Your task to perform on an android device: change the clock style Image 0: 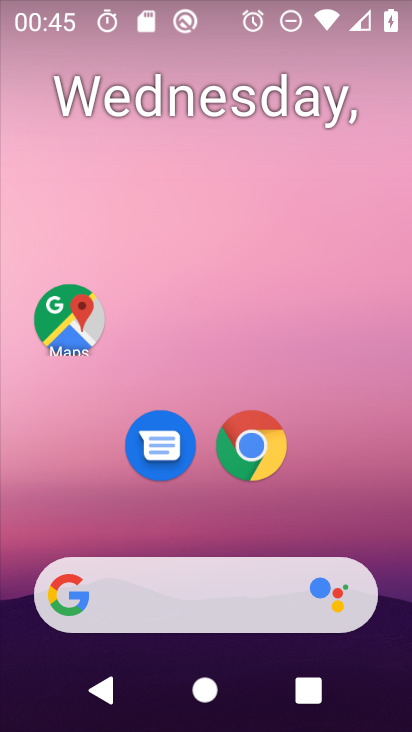
Step 0: drag from (324, 522) to (336, 0)
Your task to perform on an android device: change the clock style Image 1: 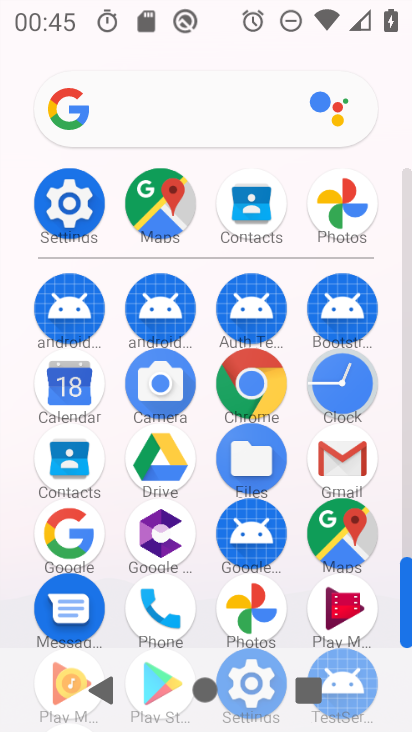
Step 1: click (336, 393)
Your task to perform on an android device: change the clock style Image 2: 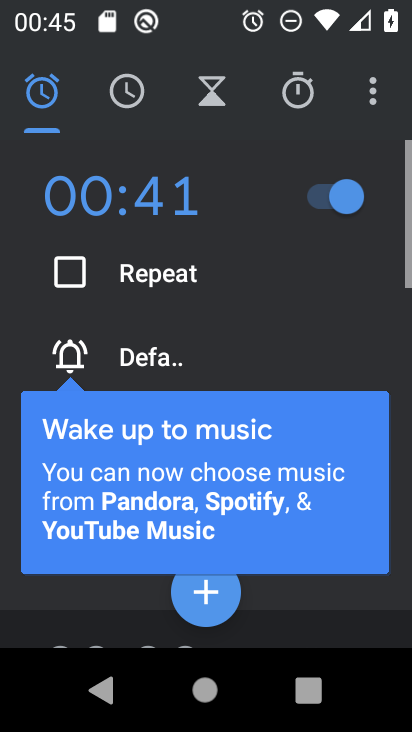
Step 2: click (373, 92)
Your task to perform on an android device: change the clock style Image 3: 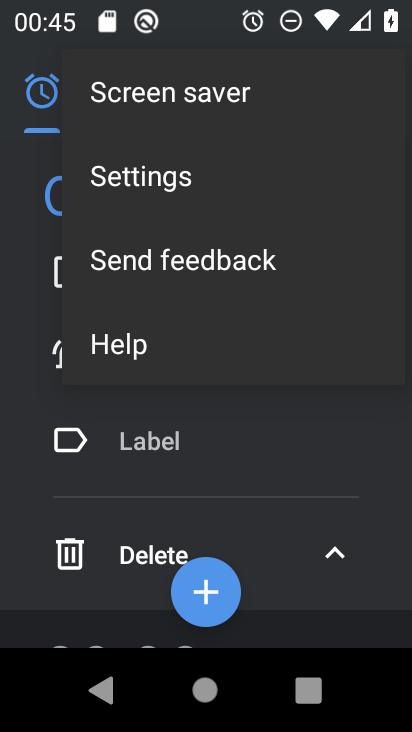
Step 3: click (200, 183)
Your task to perform on an android device: change the clock style Image 4: 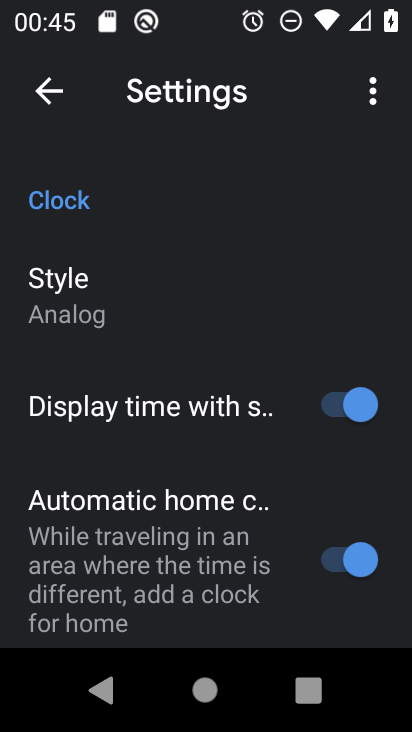
Step 4: click (51, 311)
Your task to perform on an android device: change the clock style Image 5: 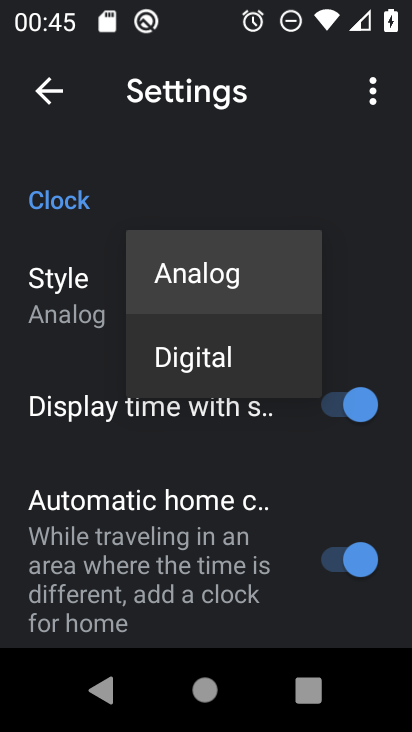
Step 5: click (204, 338)
Your task to perform on an android device: change the clock style Image 6: 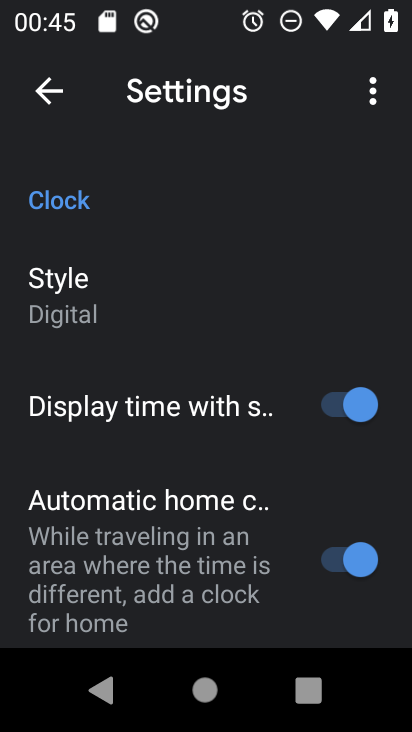
Step 6: task complete